Your task to perform on an android device: Open battery settings Image 0: 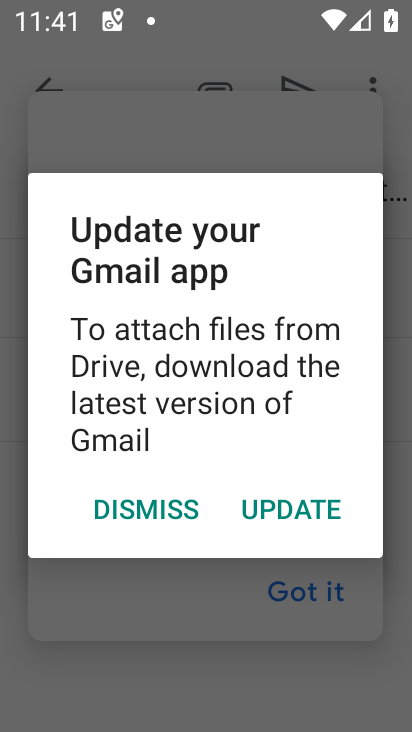
Step 0: press home button
Your task to perform on an android device: Open battery settings Image 1: 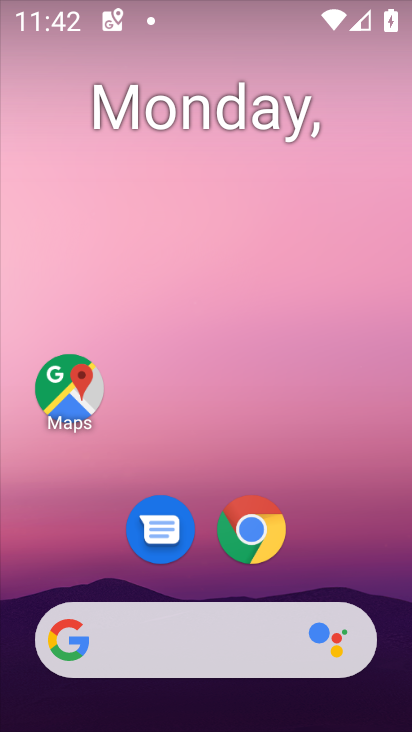
Step 1: drag from (263, 680) to (389, 186)
Your task to perform on an android device: Open battery settings Image 2: 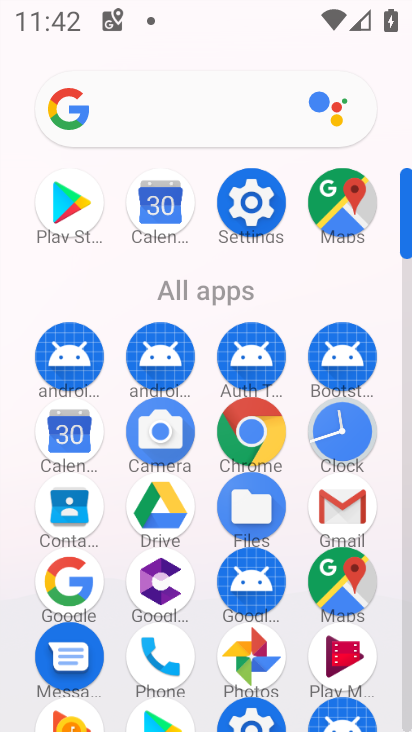
Step 2: click (254, 195)
Your task to perform on an android device: Open battery settings Image 3: 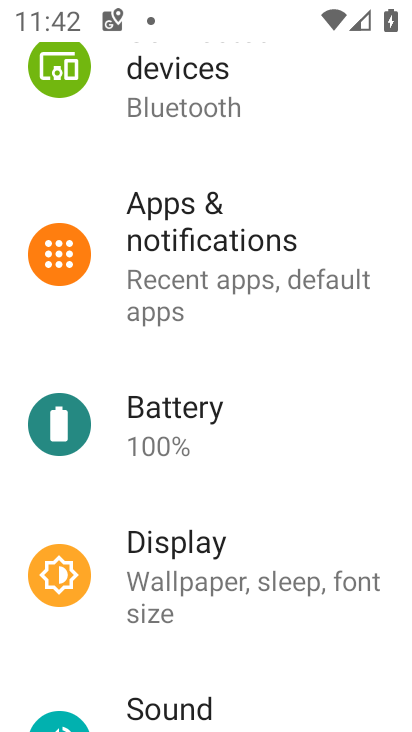
Step 3: click (173, 447)
Your task to perform on an android device: Open battery settings Image 4: 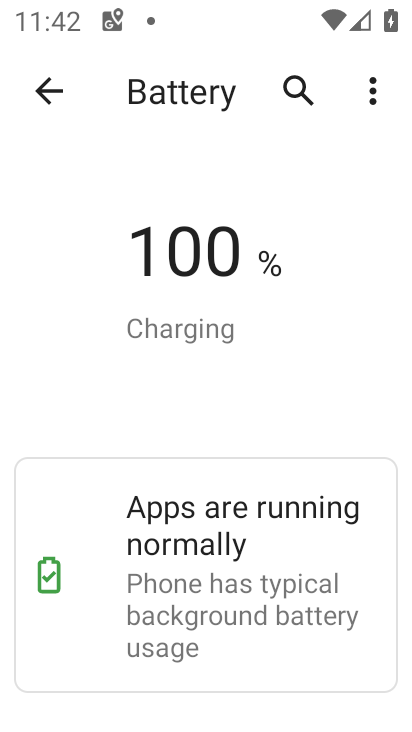
Step 4: task complete